Your task to perform on an android device: remove spam from my inbox in the gmail app Image 0: 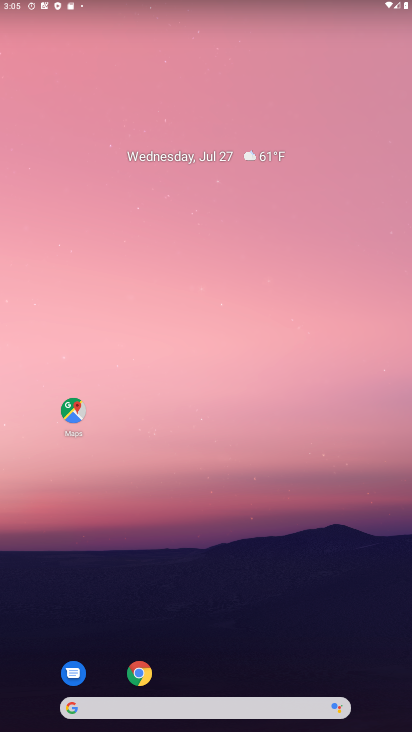
Step 0: drag from (28, 697) to (245, 178)
Your task to perform on an android device: remove spam from my inbox in the gmail app Image 1: 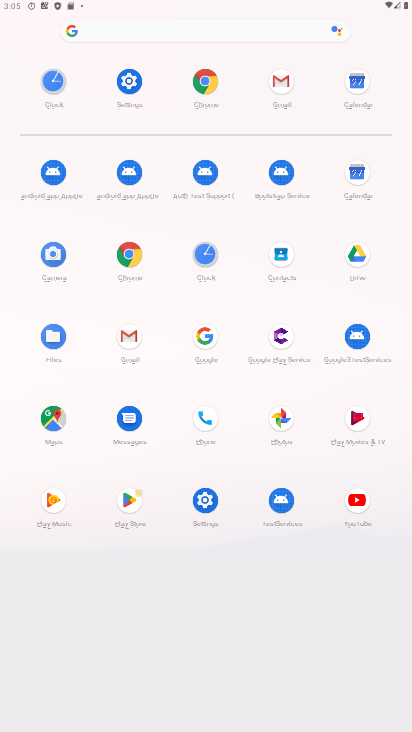
Step 1: click (125, 343)
Your task to perform on an android device: remove spam from my inbox in the gmail app Image 2: 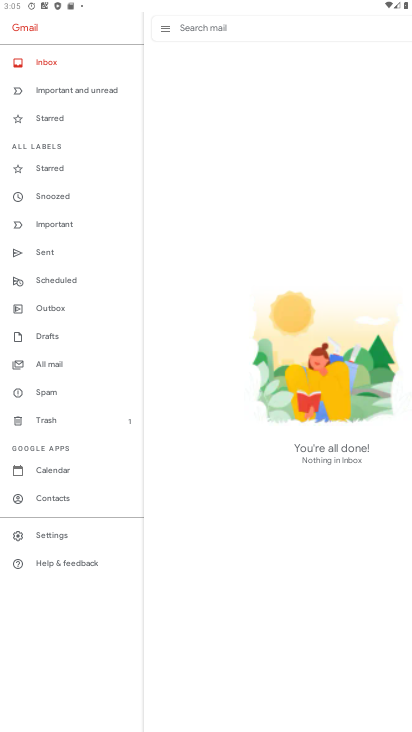
Step 2: click (42, 397)
Your task to perform on an android device: remove spam from my inbox in the gmail app Image 3: 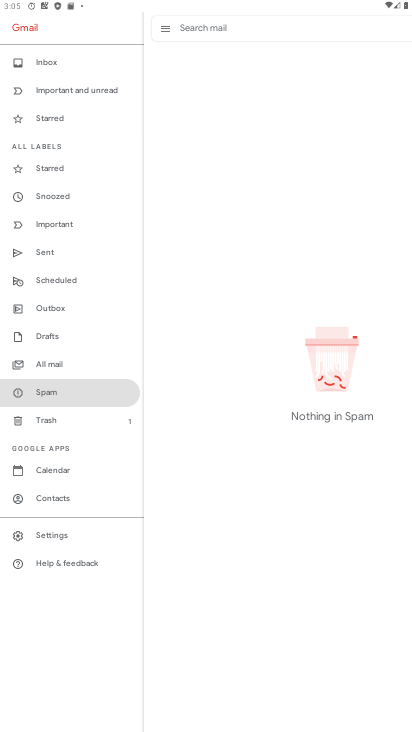
Step 3: task complete